Your task to perform on an android device: What's on my calendar tomorrow? Image 0: 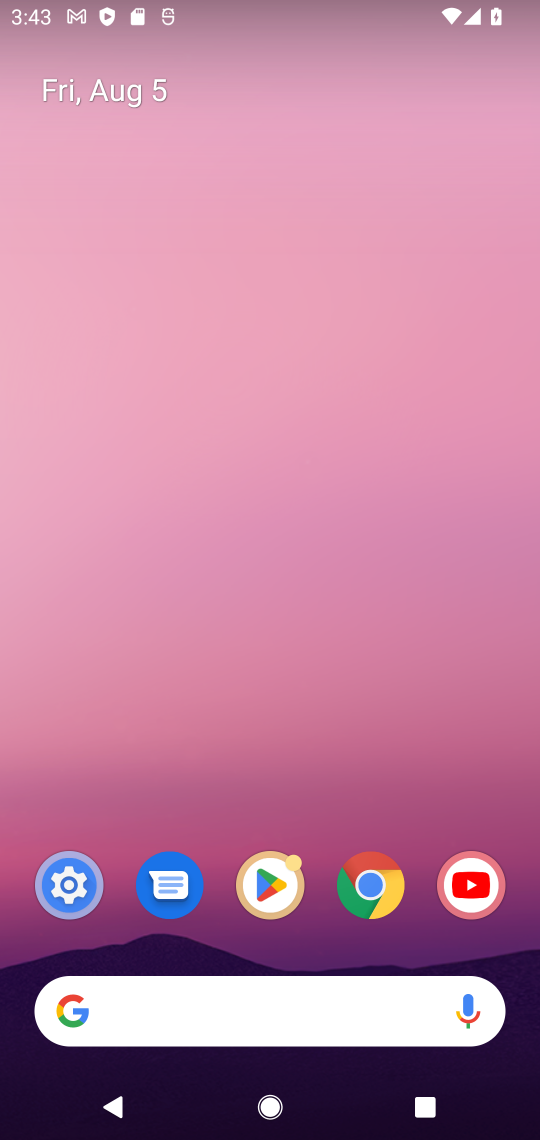
Step 0: drag from (316, 900) to (250, 101)
Your task to perform on an android device: What's on my calendar tomorrow? Image 1: 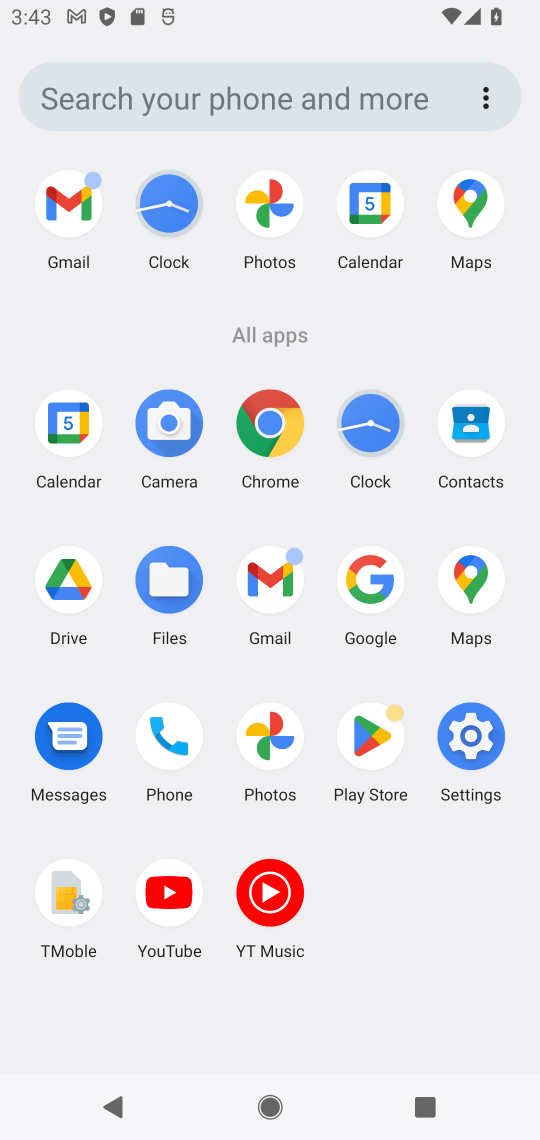
Step 1: click (365, 210)
Your task to perform on an android device: What's on my calendar tomorrow? Image 2: 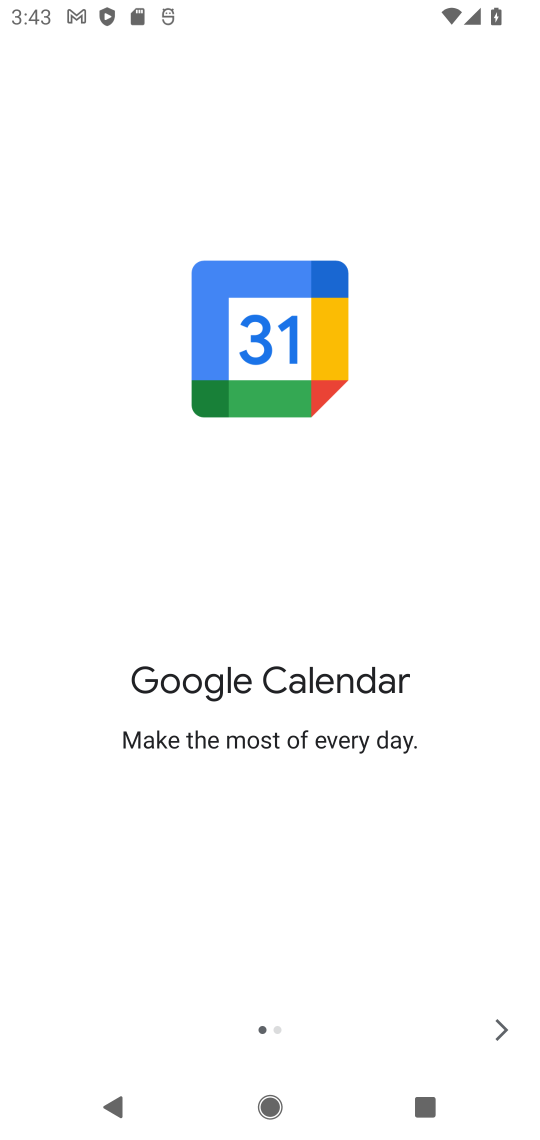
Step 2: click (500, 1025)
Your task to perform on an android device: What's on my calendar tomorrow? Image 3: 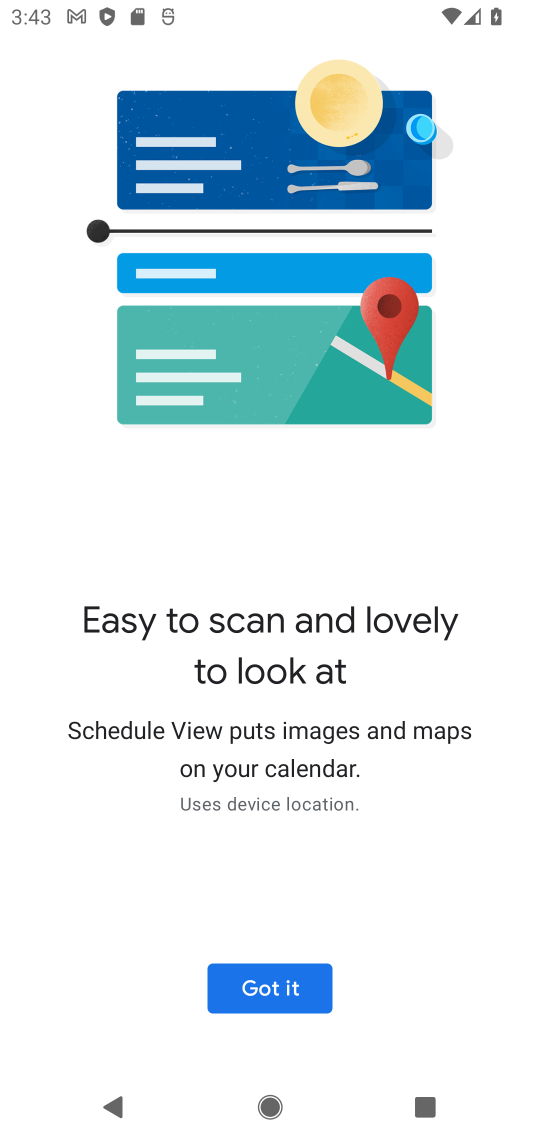
Step 3: click (293, 996)
Your task to perform on an android device: What's on my calendar tomorrow? Image 4: 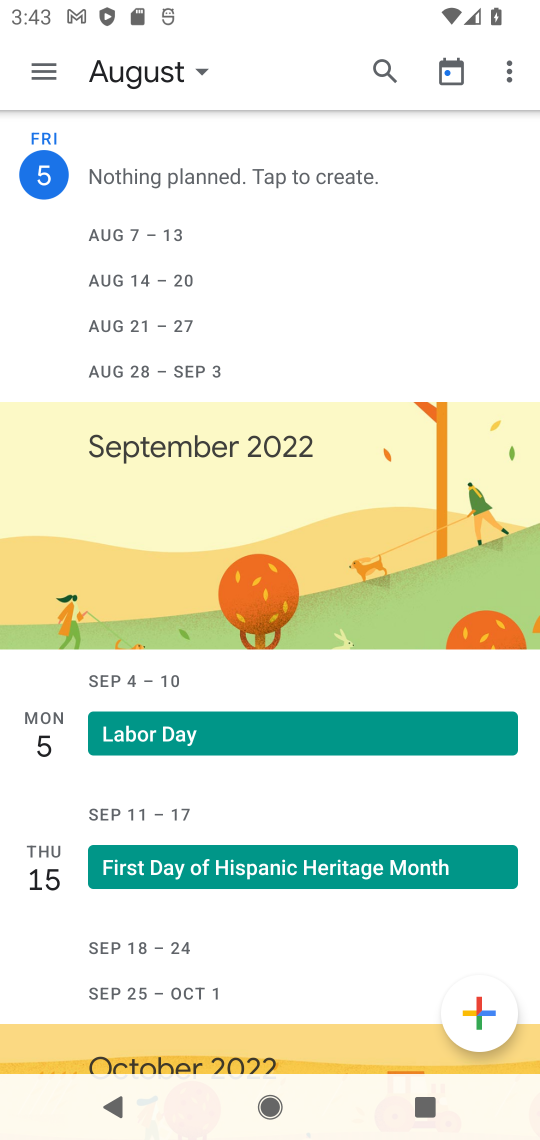
Step 4: click (197, 73)
Your task to perform on an android device: What's on my calendar tomorrow? Image 5: 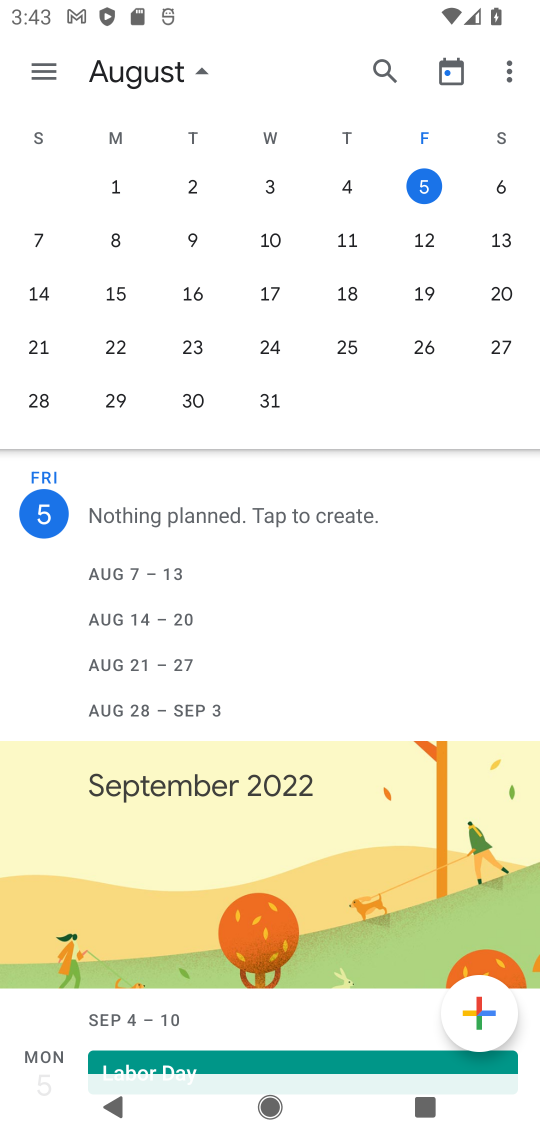
Step 5: click (496, 179)
Your task to perform on an android device: What's on my calendar tomorrow? Image 6: 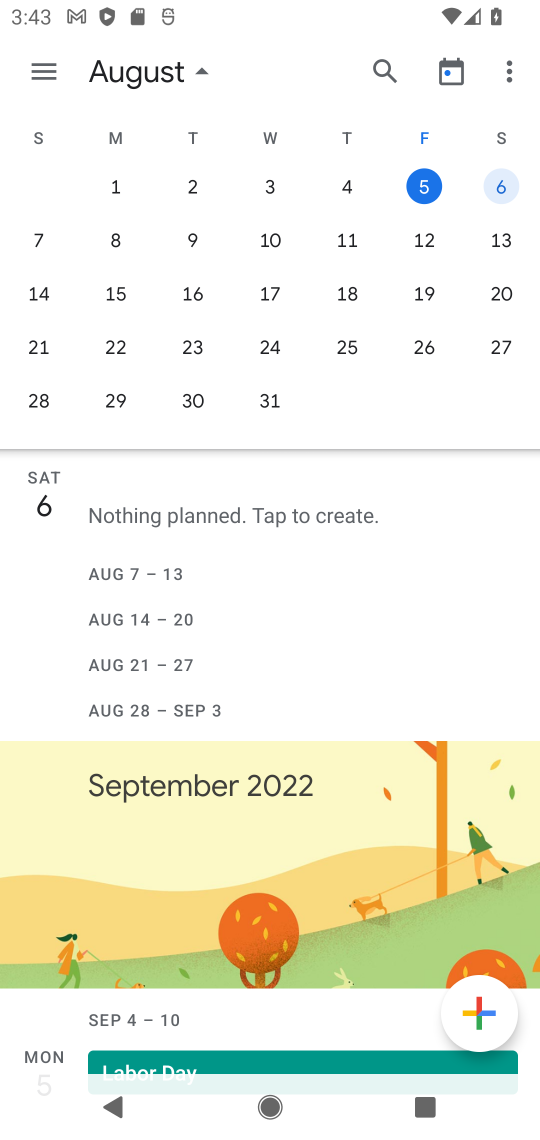
Step 6: click (487, 187)
Your task to perform on an android device: What's on my calendar tomorrow? Image 7: 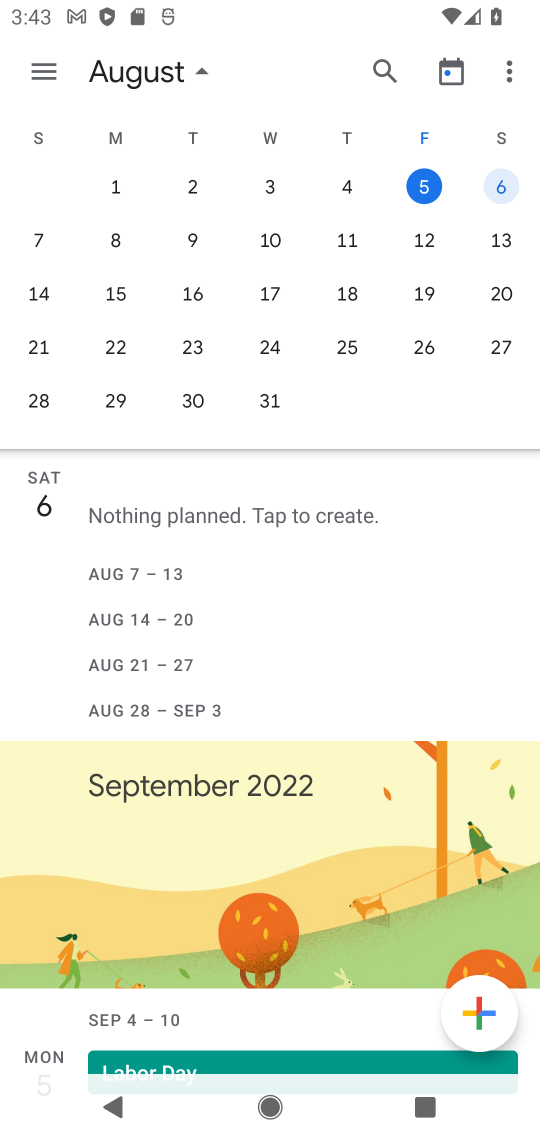
Step 7: click (487, 189)
Your task to perform on an android device: What's on my calendar tomorrow? Image 8: 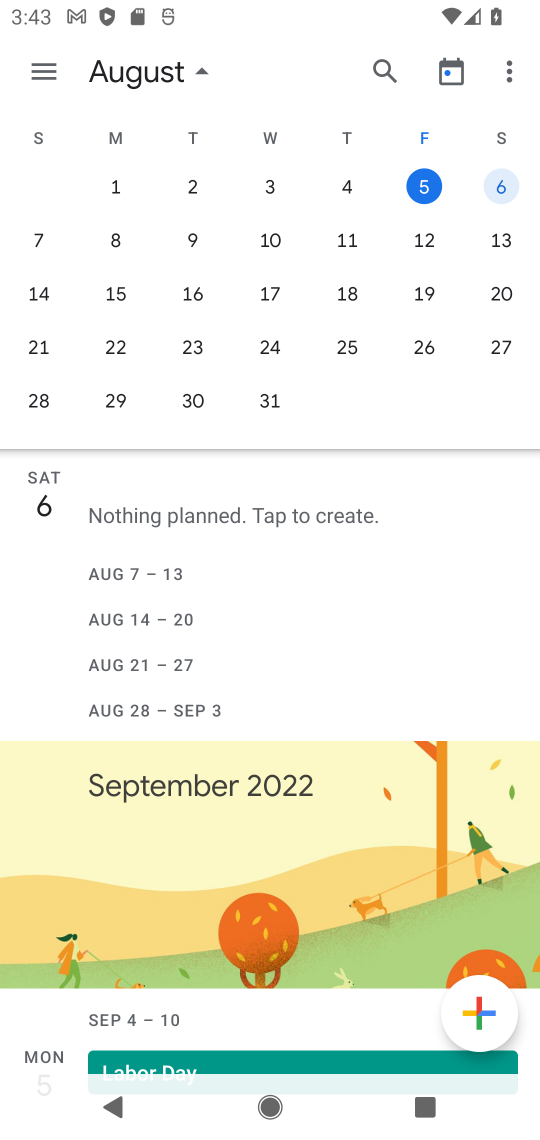
Step 8: task complete